Your task to perform on an android device: Open the Play Movies app and select the watchlist tab. Image 0: 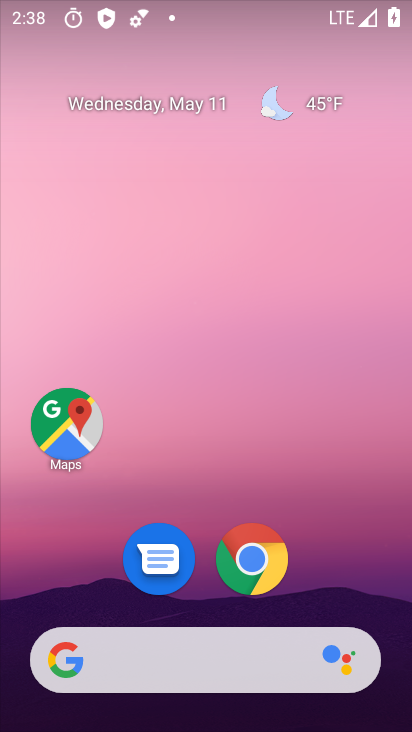
Step 0: drag from (321, 553) to (225, 136)
Your task to perform on an android device: Open the Play Movies app and select the watchlist tab. Image 1: 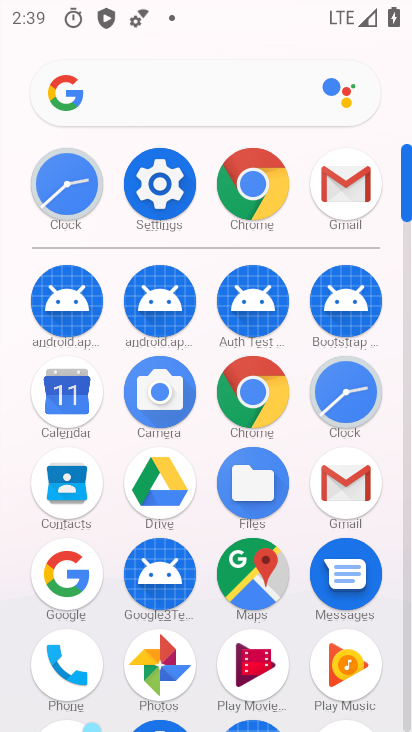
Step 1: click (256, 674)
Your task to perform on an android device: Open the Play Movies app and select the watchlist tab. Image 2: 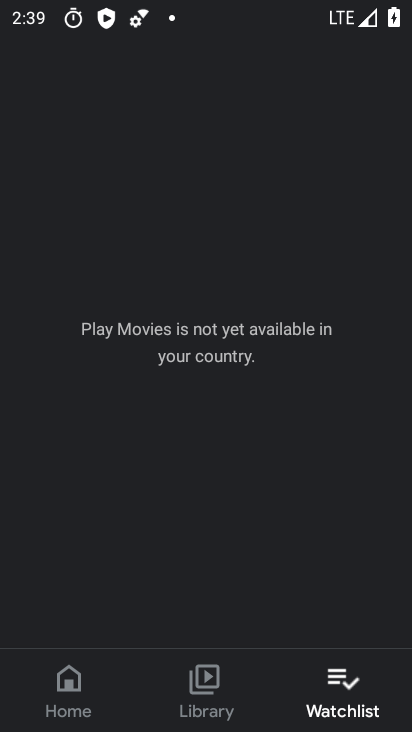
Step 2: task complete